Your task to perform on an android device: set default search engine in the chrome app Image 0: 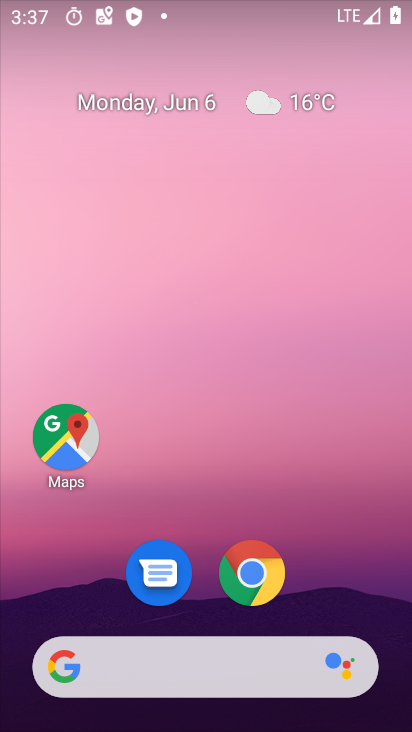
Step 0: drag from (368, 601) to (363, 134)
Your task to perform on an android device: set default search engine in the chrome app Image 1: 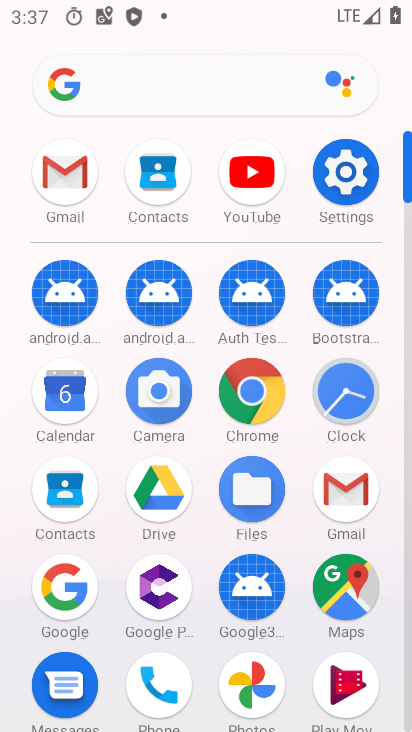
Step 1: click (273, 408)
Your task to perform on an android device: set default search engine in the chrome app Image 2: 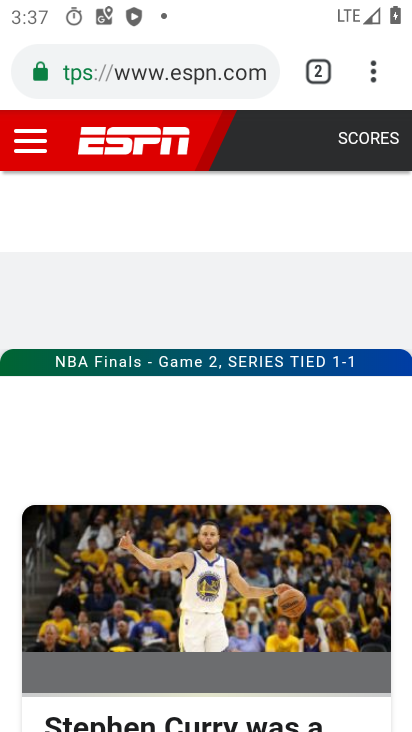
Step 2: click (370, 82)
Your task to perform on an android device: set default search engine in the chrome app Image 3: 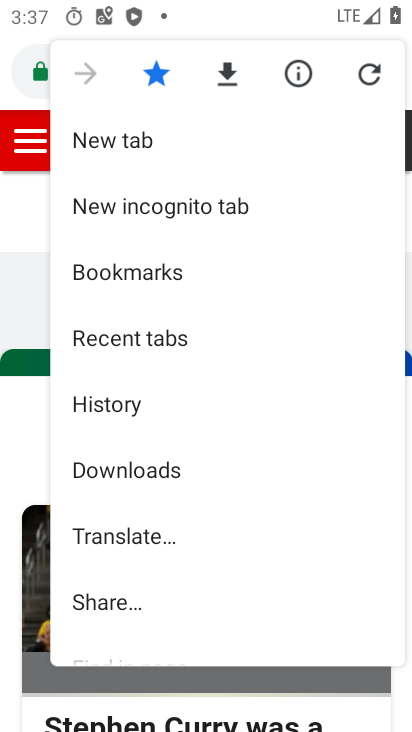
Step 3: drag from (306, 474) to (308, 392)
Your task to perform on an android device: set default search engine in the chrome app Image 4: 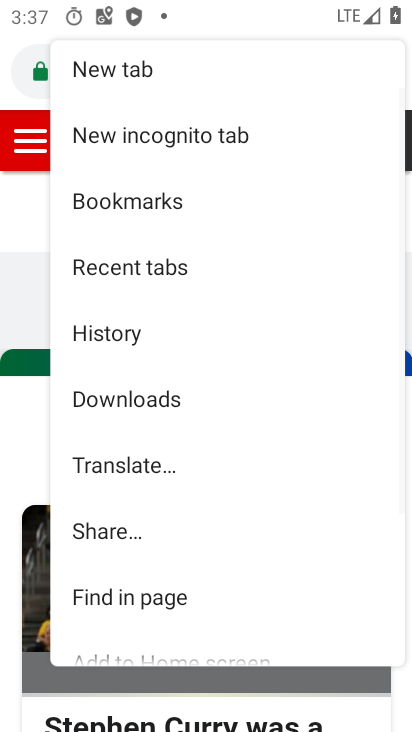
Step 4: drag from (312, 500) to (315, 422)
Your task to perform on an android device: set default search engine in the chrome app Image 5: 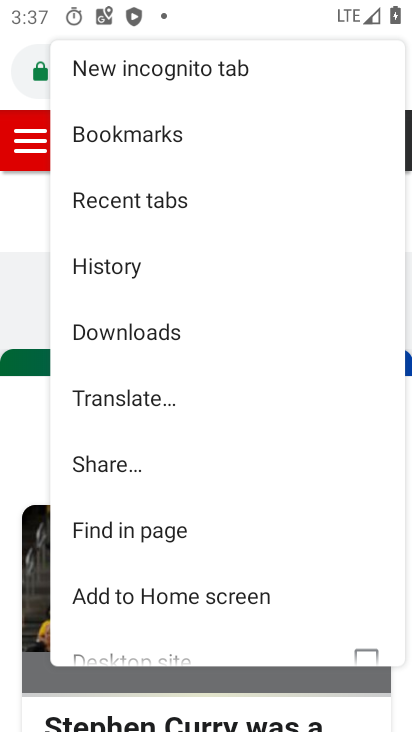
Step 5: drag from (315, 465) to (323, 385)
Your task to perform on an android device: set default search engine in the chrome app Image 6: 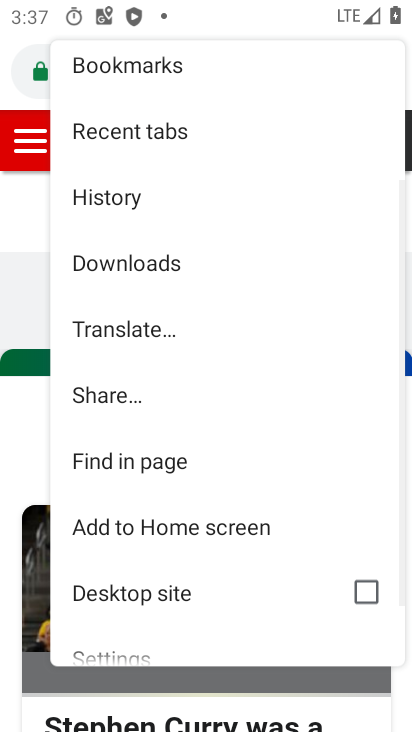
Step 6: drag from (329, 482) to (335, 379)
Your task to perform on an android device: set default search engine in the chrome app Image 7: 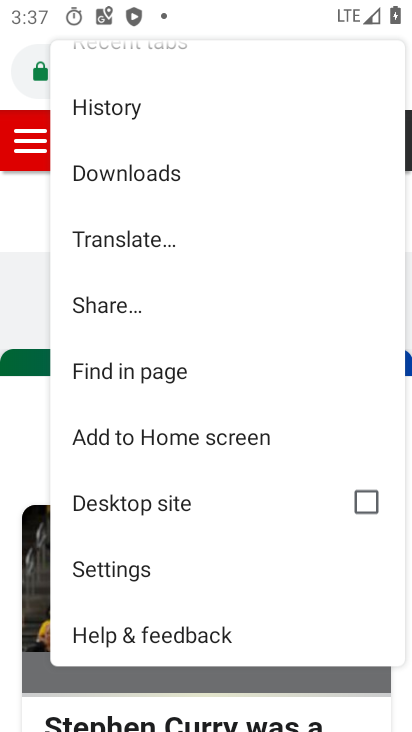
Step 7: click (194, 567)
Your task to perform on an android device: set default search engine in the chrome app Image 8: 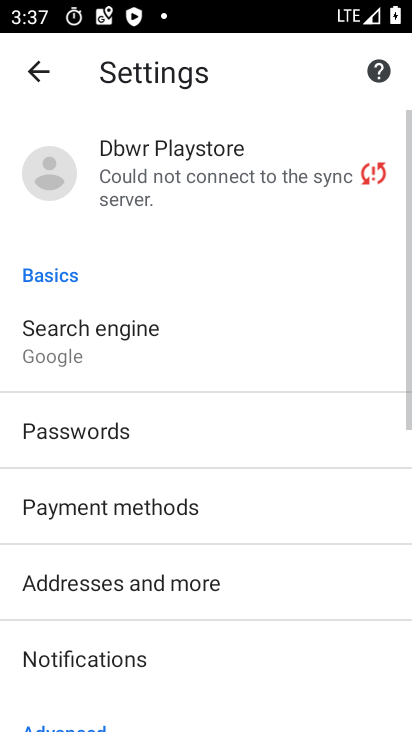
Step 8: drag from (273, 508) to (281, 430)
Your task to perform on an android device: set default search engine in the chrome app Image 9: 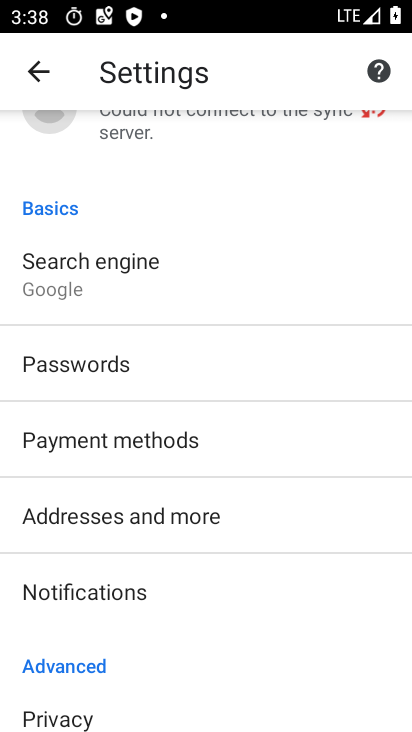
Step 9: click (187, 287)
Your task to perform on an android device: set default search engine in the chrome app Image 10: 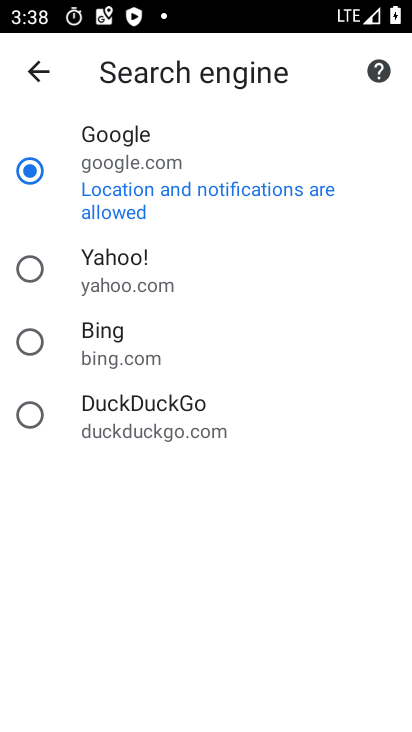
Step 10: click (154, 351)
Your task to perform on an android device: set default search engine in the chrome app Image 11: 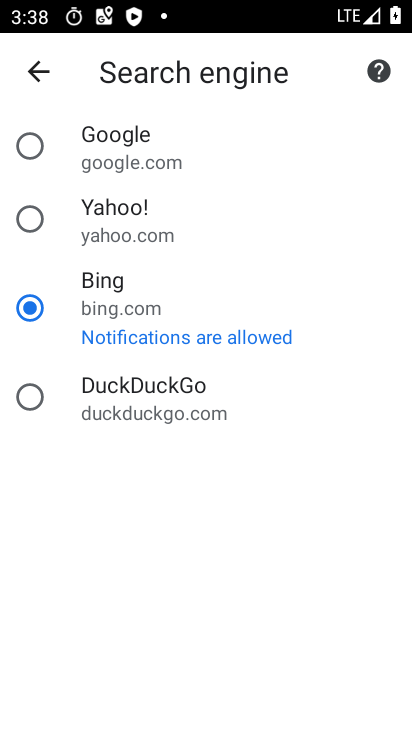
Step 11: task complete